Your task to perform on an android device: find snoozed emails in the gmail app Image 0: 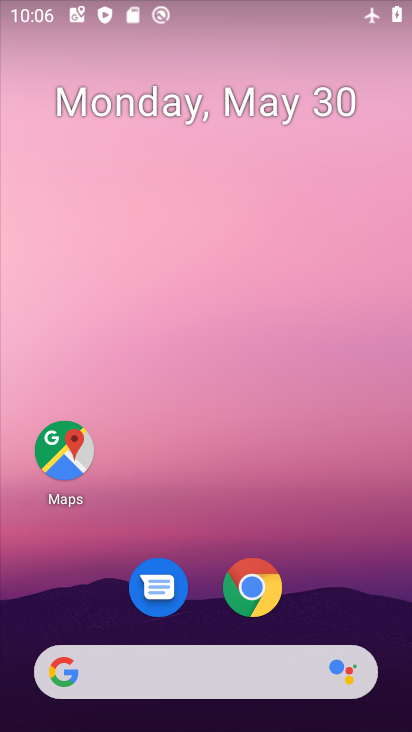
Step 0: drag from (341, 558) to (201, 37)
Your task to perform on an android device: find snoozed emails in the gmail app Image 1: 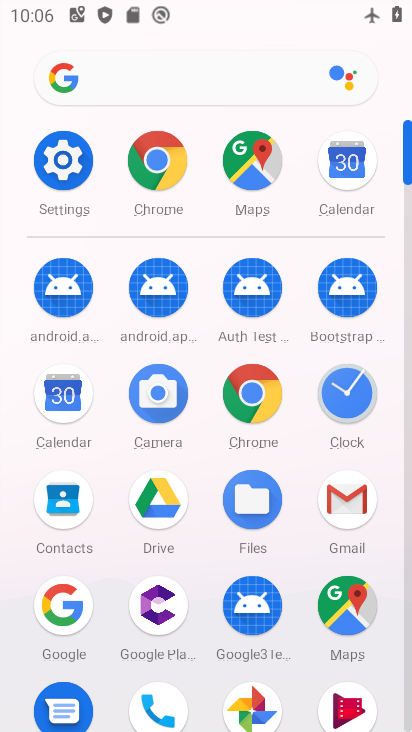
Step 1: drag from (22, 614) to (17, 249)
Your task to perform on an android device: find snoozed emails in the gmail app Image 2: 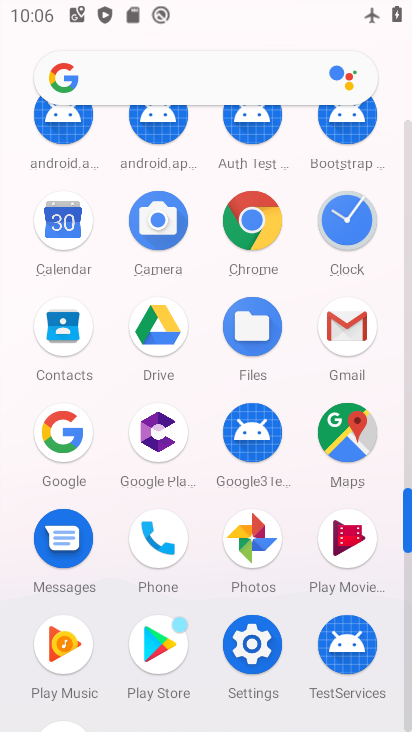
Step 2: click (349, 322)
Your task to perform on an android device: find snoozed emails in the gmail app Image 3: 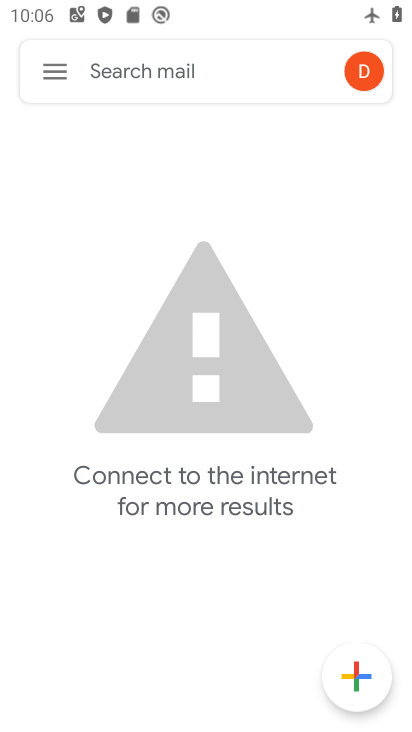
Step 3: click (60, 64)
Your task to perform on an android device: find snoozed emails in the gmail app Image 4: 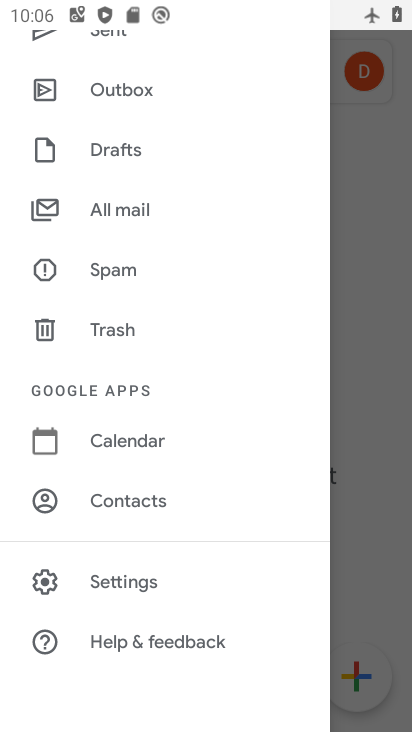
Step 4: drag from (182, 216) to (198, 556)
Your task to perform on an android device: find snoozed emails in the gmail app Image 5: 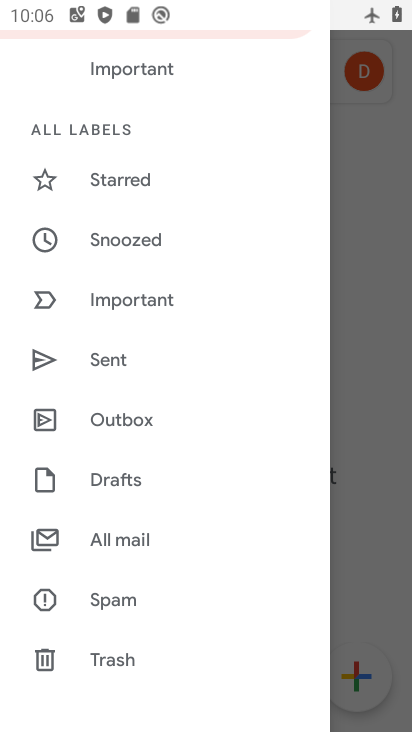
Step 5: click (148, 247)
Your task to perform on an android device: find snoozed emails in the gmail app Image 6: 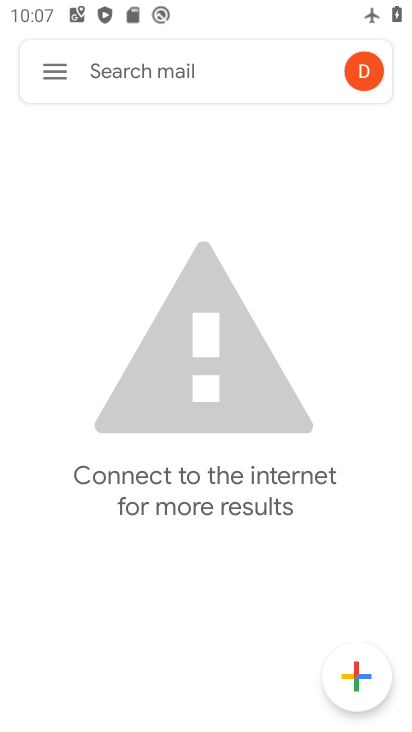
Step 6: task complete